Your task to perform on an android device: toggle pop-ups in chrome Image 0: 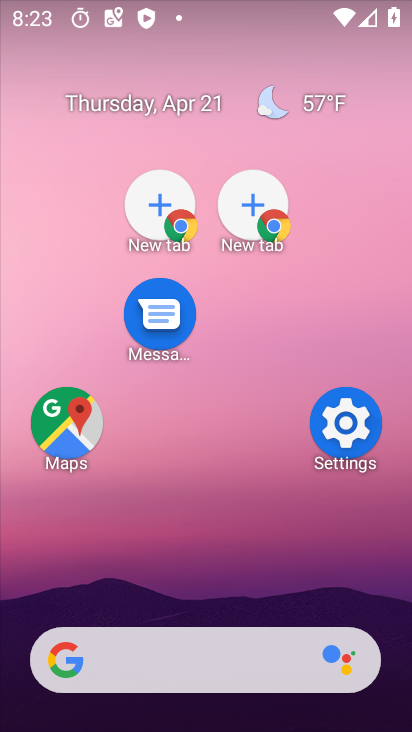
Step 0: drag from (294, 729) to (232, 188)
Your task to perform on an android device: toggle pop-ups in chrome Image 1: 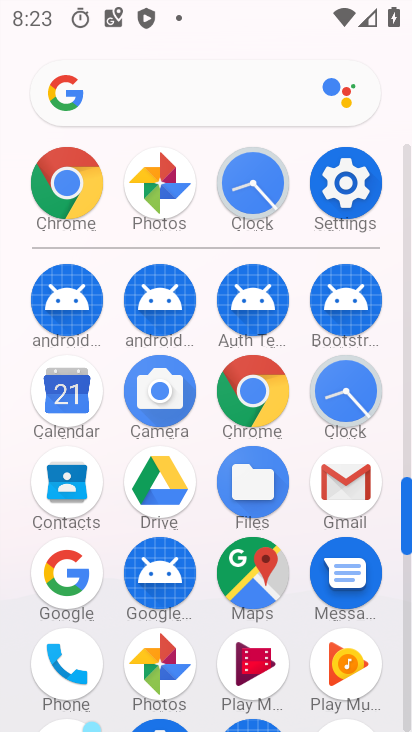
Step 1: click (67, 179)
Your task to perform on an android device: toggle pop-ups in chrome Image 2: 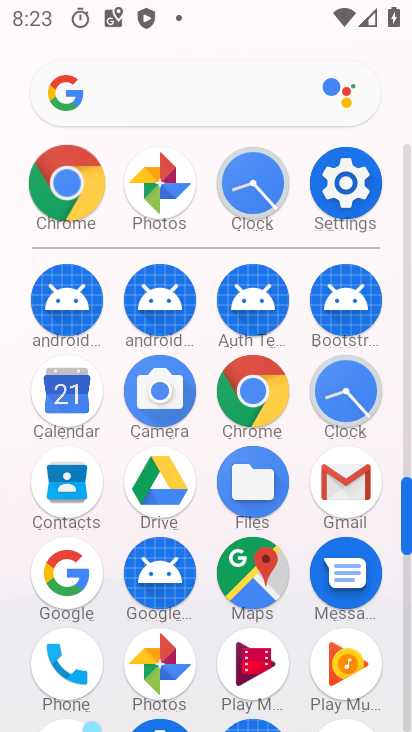
Step 2: click (67, 179)
Your task to perform on an android device: toggle pop-ups in chrome Image 3: 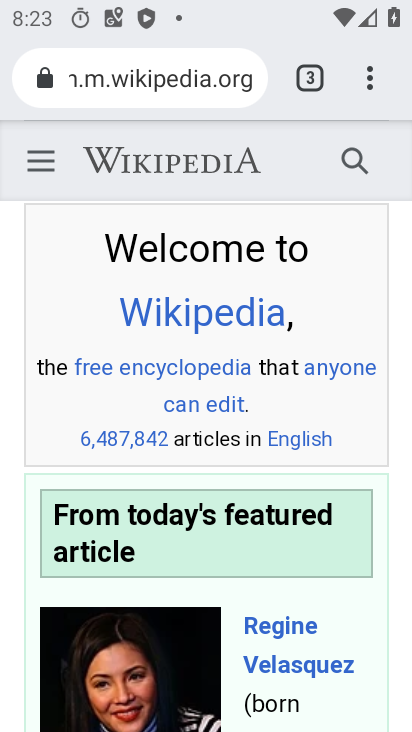
Step 3: click (375, 80)
Your task to perform on an android device: toggle pop-ups in chrome Image 4: 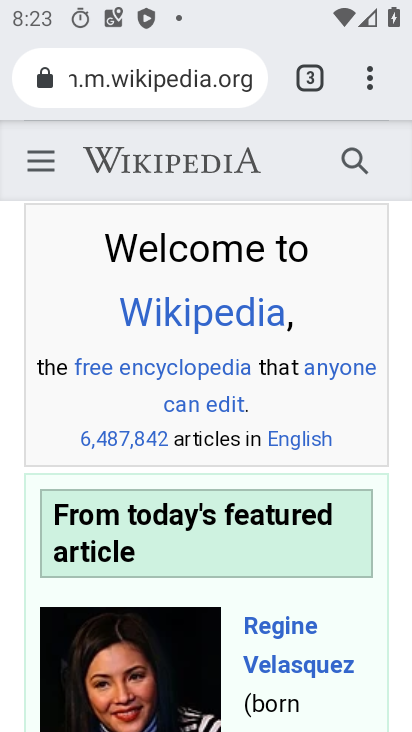
Step 4: drag from (365, 77) to (91, 602)
Your task to perform on an android device: toggle pop-ups in chrome Image 5: 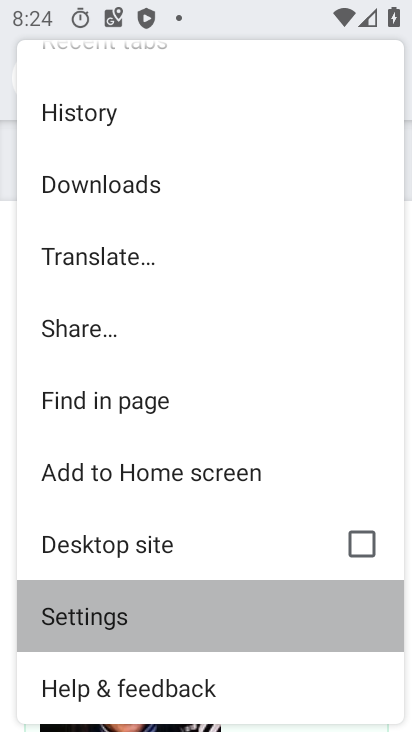
Step 5: click (101, 608)
Your task to perform on an android device: toggle pop-ups in chrome Image 6: 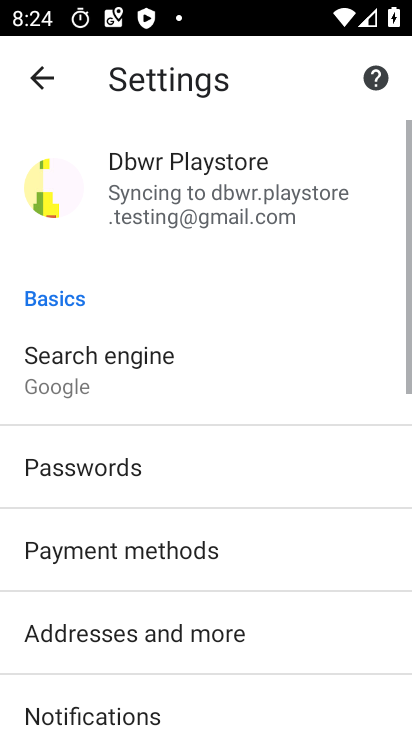
Step 6: drag from (278, 686) to (272, 103)
Your task to perform on an android device: toggle pop-ups in chrome Image 7: 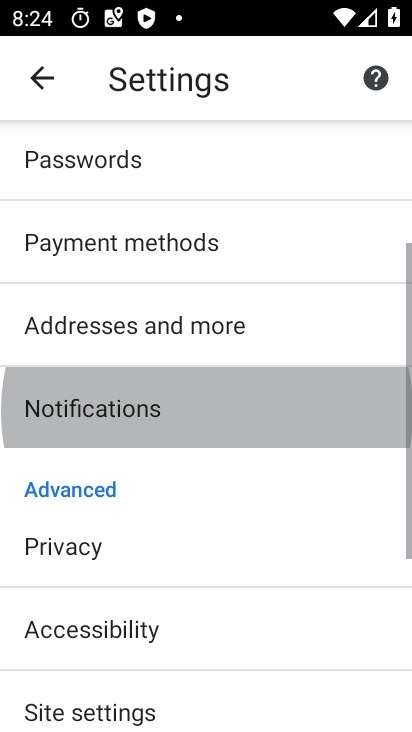
Step 7: drag from (260, 469) to (284, 85)
Your task to perform on an android device: toggle pop-ups in chrome Image 8: 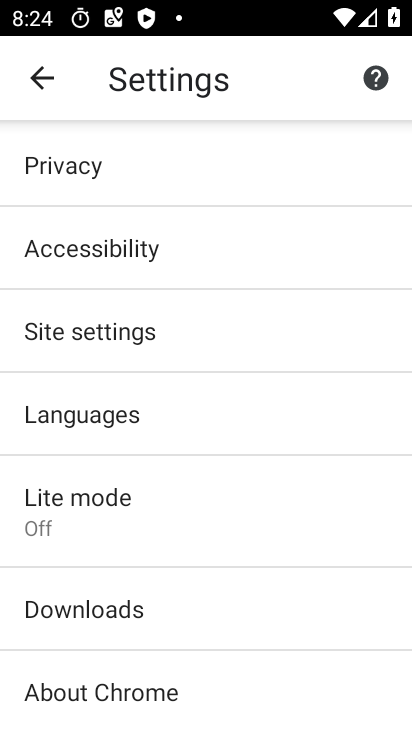
Step 8: click (91, 328)
Your task to perform on an android device: toggle pop-ups in chrome Image 9: 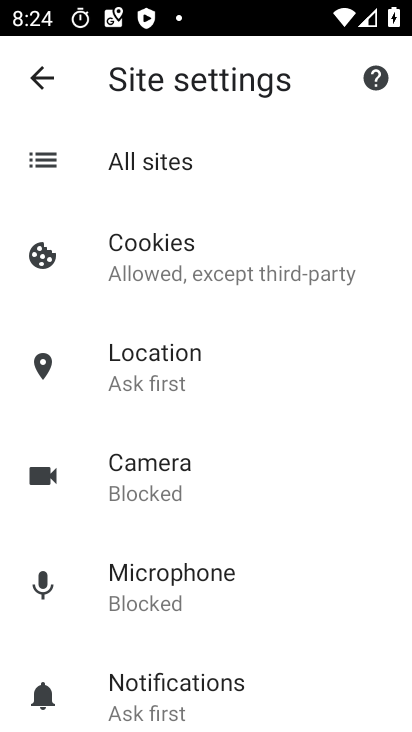
Step 9: drag from (179, 514) to (142, 161)
Your task to perform on an android device: toggle pop-ups in chrome Image 10: 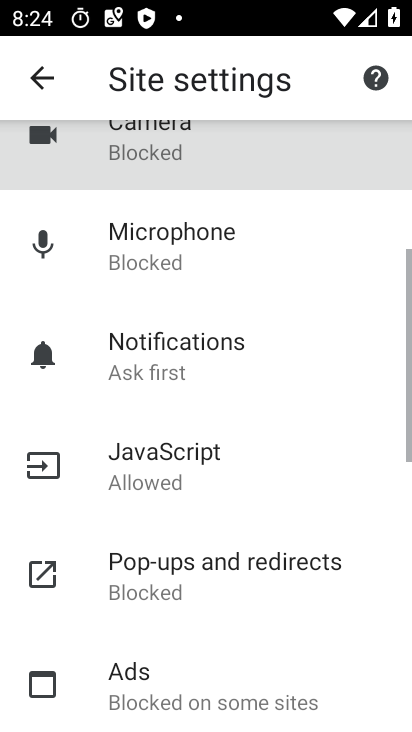
Step 10: drag from (146, 311) to (145, 192)
Your task to perform on an android device: toggle pop-ups in chrome Image 11: 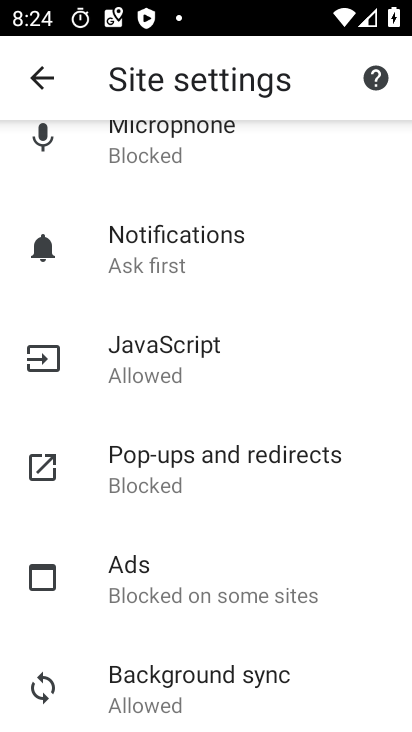
Step 11: click (161, 474)
Your task to perform on an android device: toggle pop-ups in chrome Image 12: 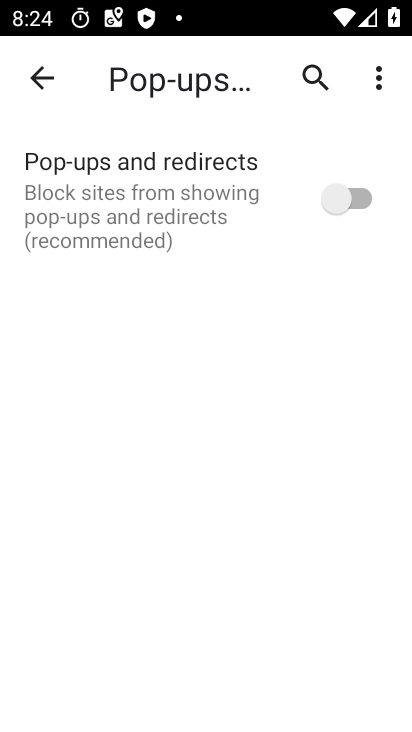
Step 12: click (328, 191)
Your task to perform on an android device: toggle pop-ups in chrome Image 13: 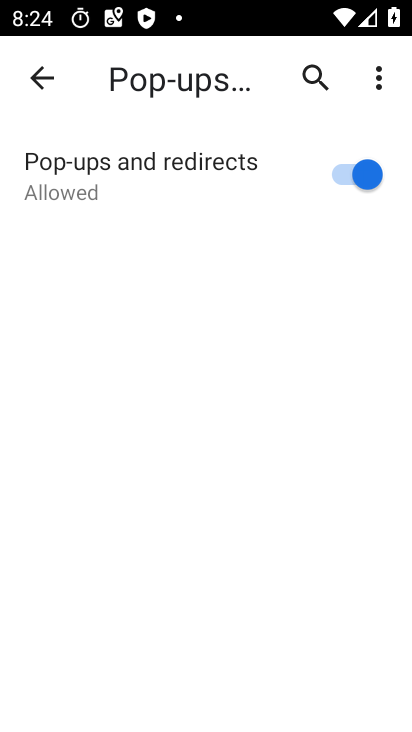
Step 13: task complete